Your task to perform on an android device: turn smart compose on in the gmail app Image 0: 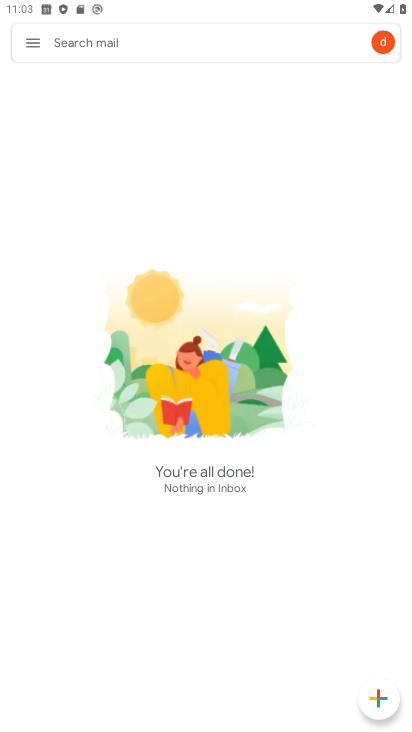
Step 0: click (21, 43)
Your task to perform on an android device: turn smart compose on in the gmail app Image 1: 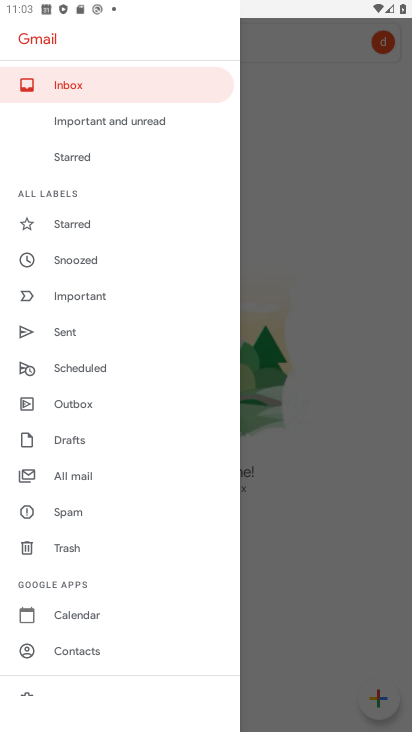
Step 1: drag from (53, 502) to (72, 281)
Your task to perform on an android device: turn smart compose on in the gmail app Image 2: 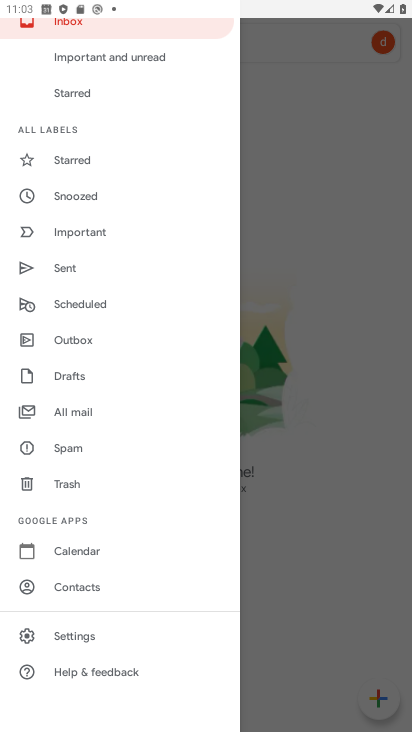
Step 2: click (88, 639)
Your task to perform on an android device: turn smart compose on in the gmail app Image 3: 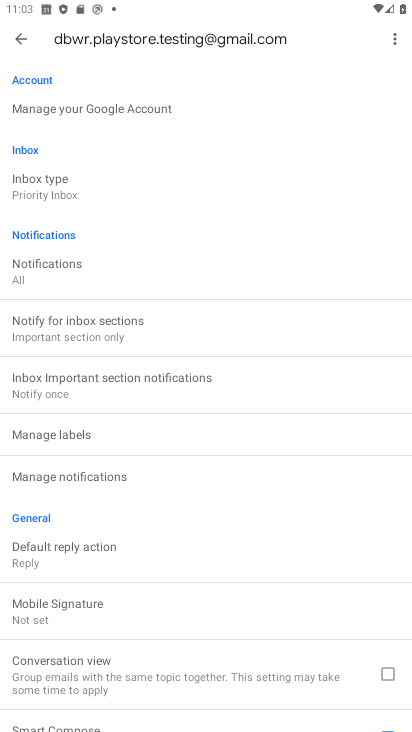
Step 3: task complete